Your task to perform on an android device: What's the news in Sri Lanka? Image 0: 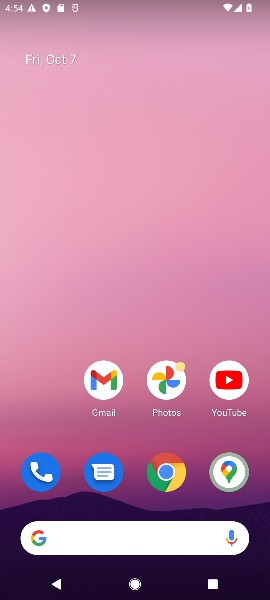
Step 0: click (172, 473)
Your task to perform on an android device: What's the news in Sri Lanka? Image 1: 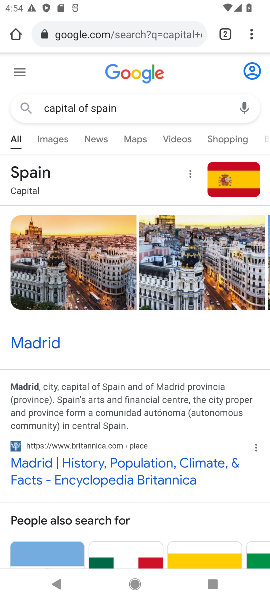
Step 1: click (108, 35)
Your task to perform on an android device: What's the news in Sri Lanka? Image 2: 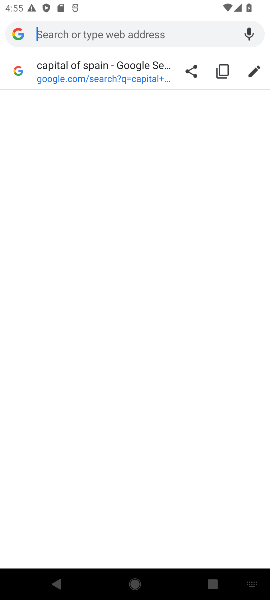
Step 2: type "news in Sri Lanka"
Your task to perform on an android device: What's the news in Sri Lanka? Image 3: 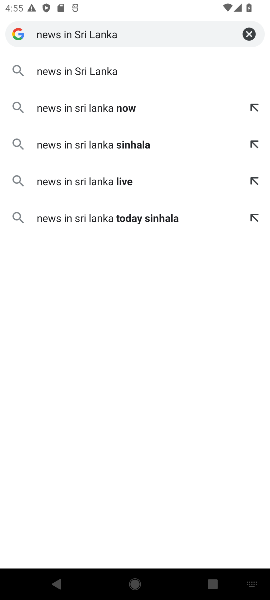
Step 3: click (75, 69)
Your task to perform on an android device: What's the news in Sri Lanka? Image 4: 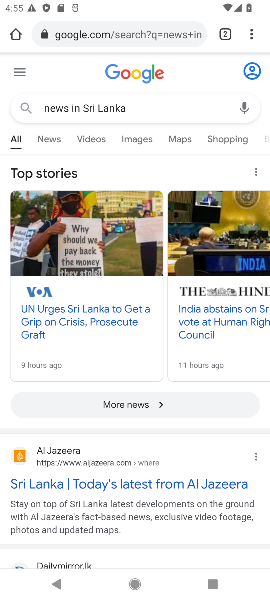
Step 4: click (50, 137)
Your task to perform on an android device: What's the news in Sri Lanka? Image 5: 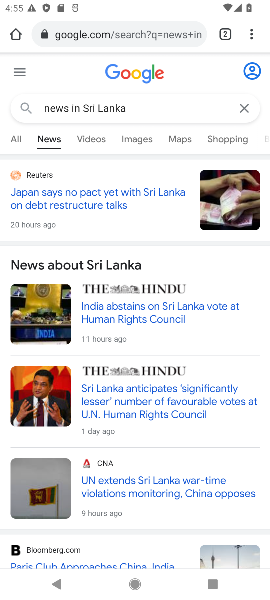
Step 5: task complete